Your task to perform on an android device: toggle notifications settings in the gmail app Image 0: 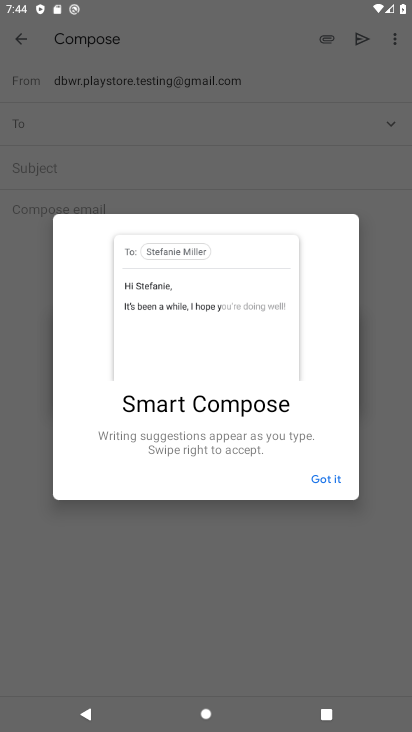
Step 0: press home button
Your task to perform on an android device: toggle notifications settings in the gmail app Image 1: 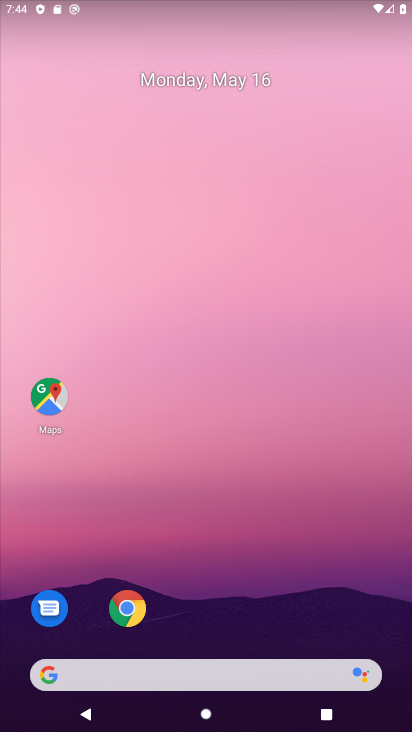
Step 1: drag from (93, 565) to (375, 142)
Your task to perform on an android device: toggle notifications settings in the gmail app Image 2: 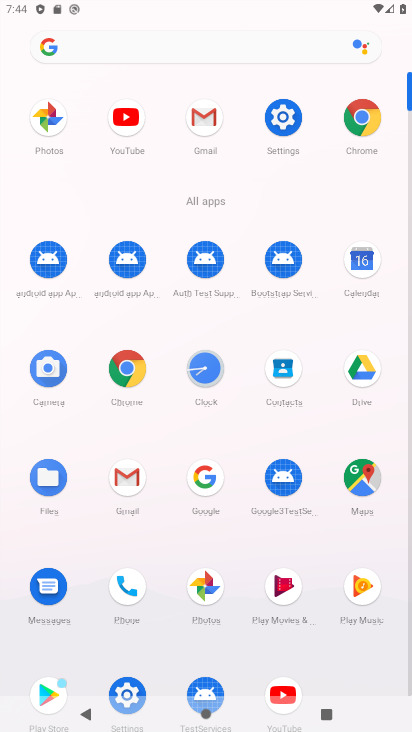
Step 2: click (132, 485)
Your task to perform on an android device: toggle notifications settings in the gmail app Image 3: 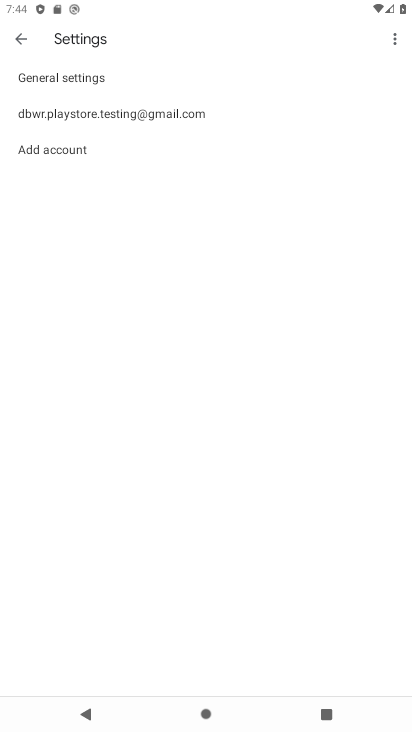
Step 3: click (126, 116)
Your task to perform on an android device: toggle notifications settings in the gmail app Image 4: 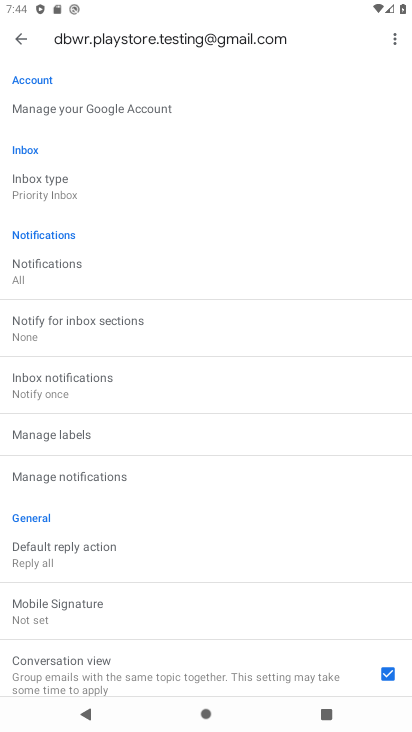
Step 4: click (107, 477)
Your task to perform on an android device: toggle notifications settings in the gmail app Image 5: 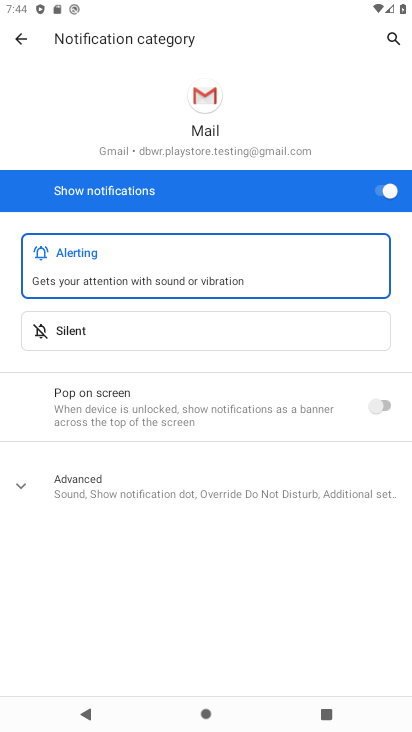
Step 5: click (389, 196)
Your task to perform on an android device: toggle notifications settings in the gmail app Image 6: 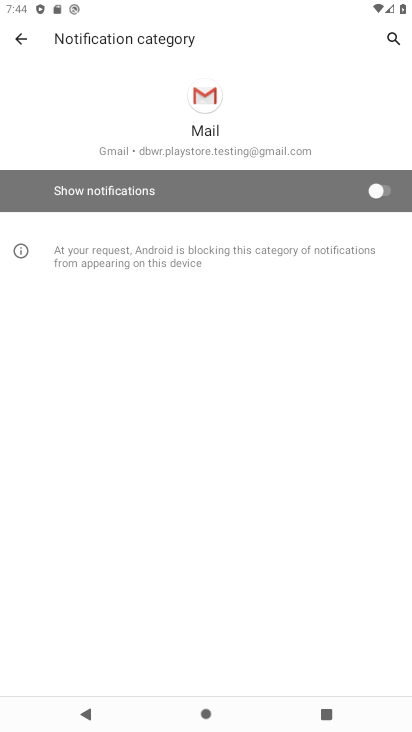
Step 6: task complete